Your task to perform on an android device: open a new tab in the chrome app Image 0: 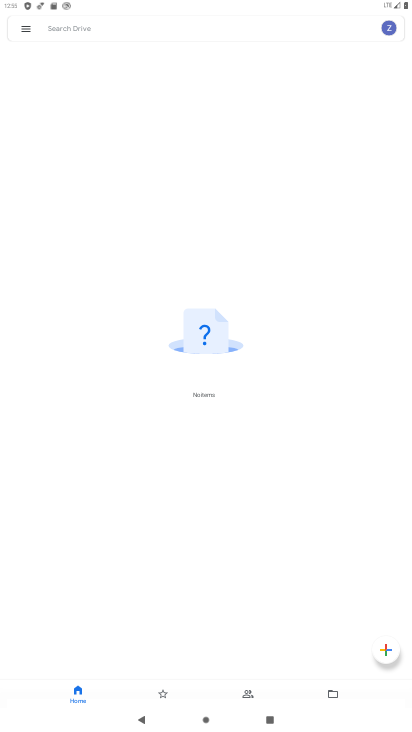
Step 0: press home button
Your task to perform on an android device: open a new tab in the chrome app Image 1: 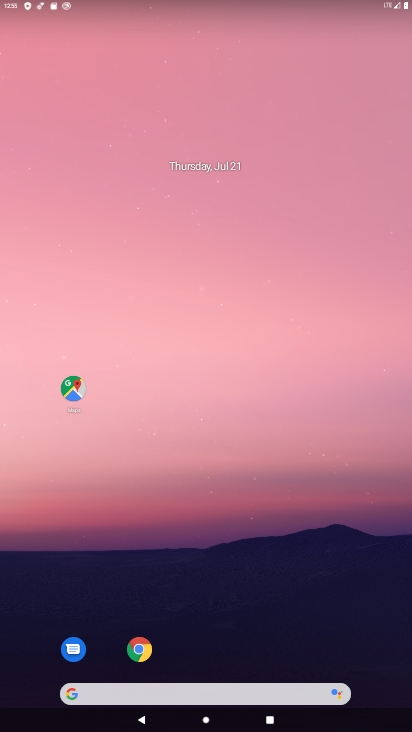
Step 1: click (139, 653)
Your task to perform on an android device: open a new tab in the chrome app Image 2: 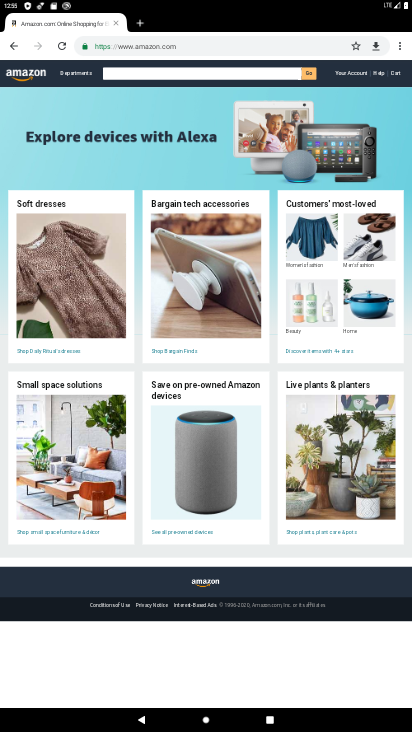
Step 2: click (400, 49)
Your task to perform on an android device: open a new tab in the chrome app Image 3: 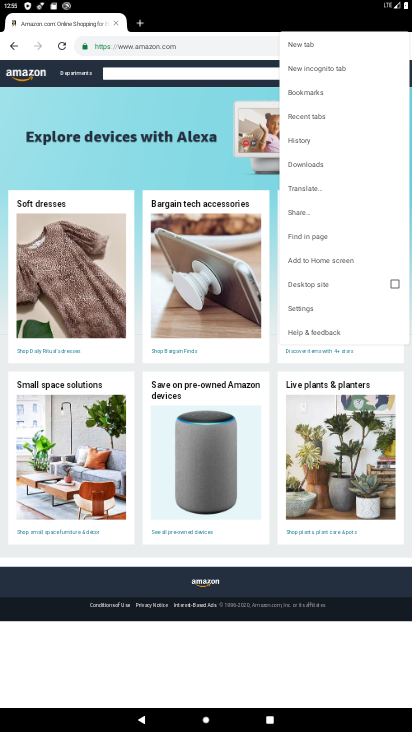
Step 3: click (294, 48)
Your task to perform on an android device: open a new tab in the chrome app Image 4: 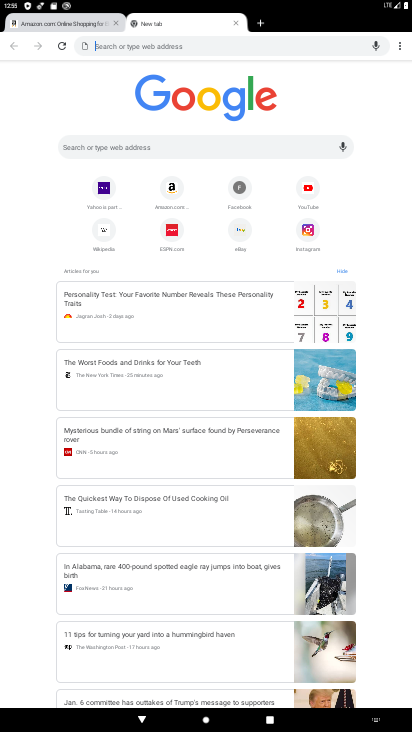
Step 4: task complete